Your task to perform on an android device: Find coffee shops on Maps Image 0: 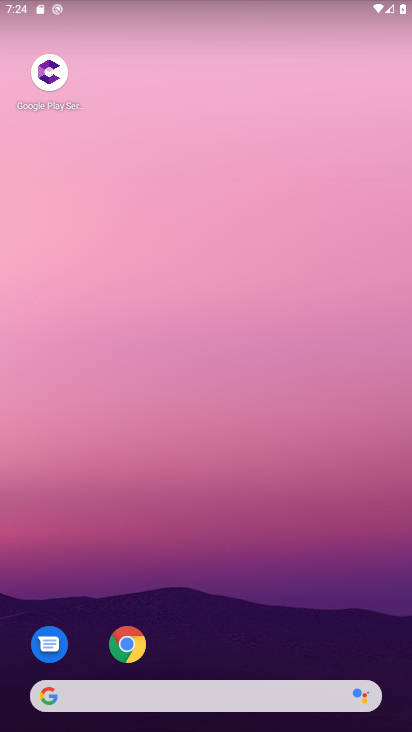
Step 0: drag from (214, 658) to (198, 104)
Your task to perform on an android device: Find coffee shops on Maps Image 1: 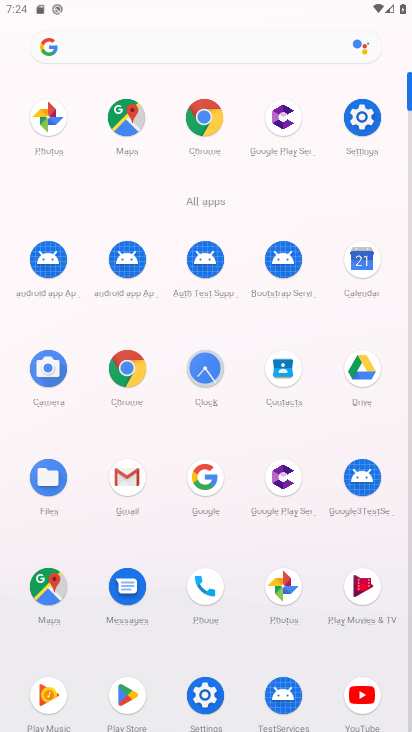
Step 1: click (49, 600)
Your task to perform on an android device: Find coffee shops on Maps Image 2: 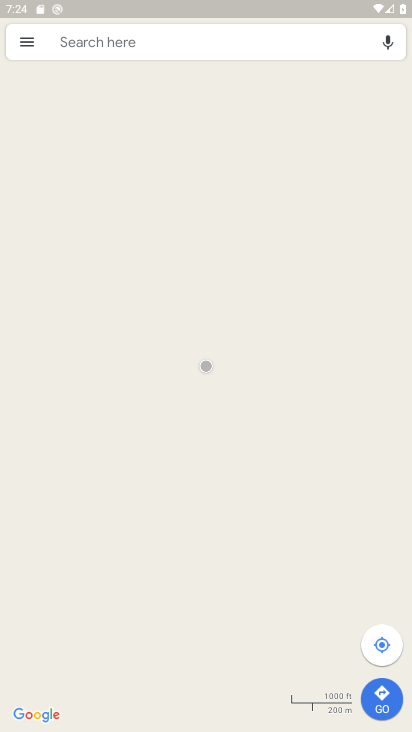
Step 2: click (171, 47)
Your task to perform on an android device: Find coffee shops on Maps Image 3: 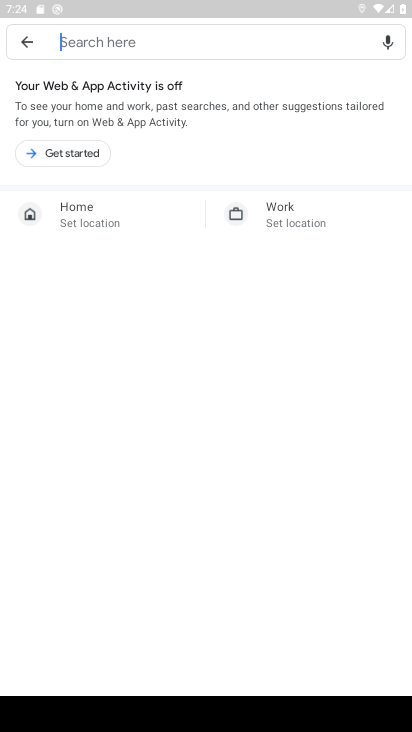
Step 3: type "coffee shops"
Your task to perform on an android device: Find coffee shops on Maps Image 4: 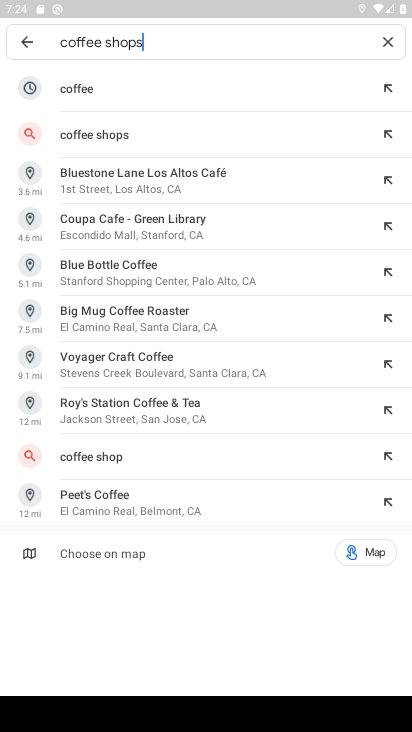
Step 4: click (111, 131)
Your task to perform on an android device: Find coffee shops on Maps Image 5: 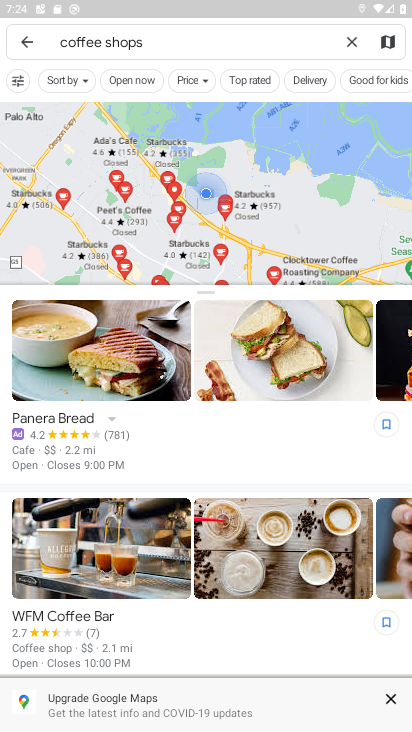
Step 5: task complete